Your task to perform on an android device: find snoozed emails in the gmail app Image 0: 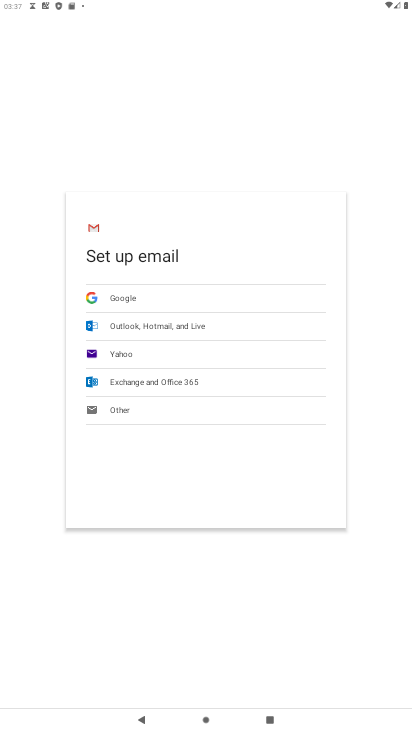
Step 0: press home button
Your task to perform on an android device: find snoozed emails in the gmail app Image 1: 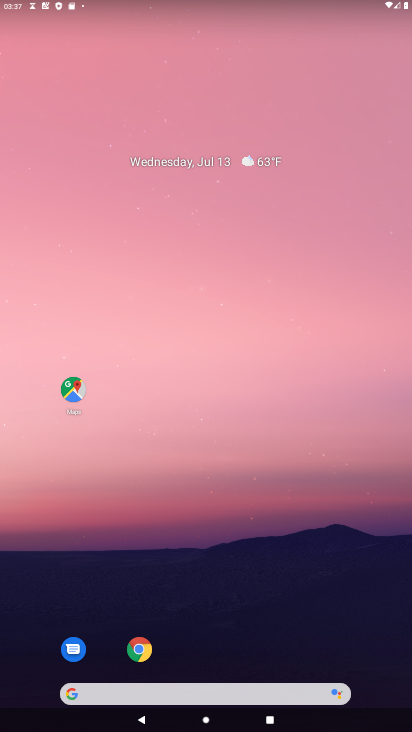
Step 1: drag from (225, 550) to (250, 7)
Your task to perform on an android device: find snoozed emails in the gmail app Image 2: 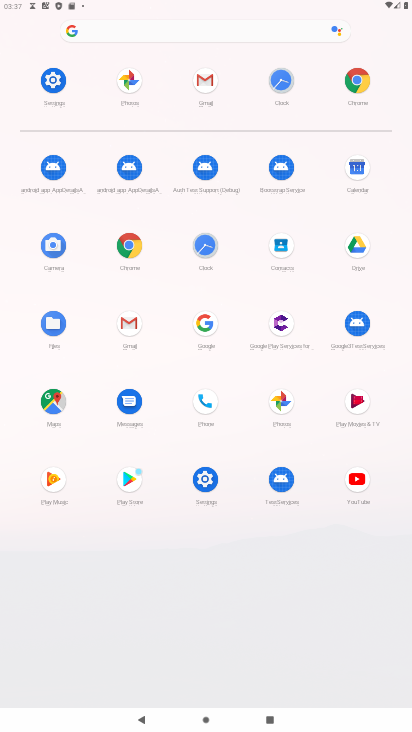
Step 2: click (205, 80)
Your task to perform on an android device: find snoozed emails in the gmail app Image 3: 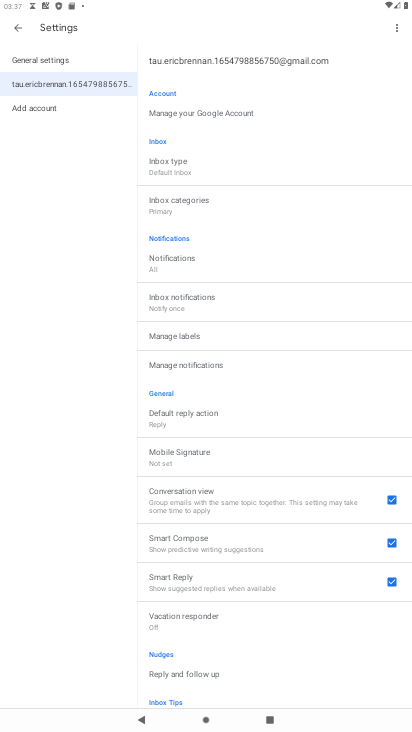
Step 3: click (18, 21)
Your task to perform on an android device: find snoozed emails in the gmail app Image 4: 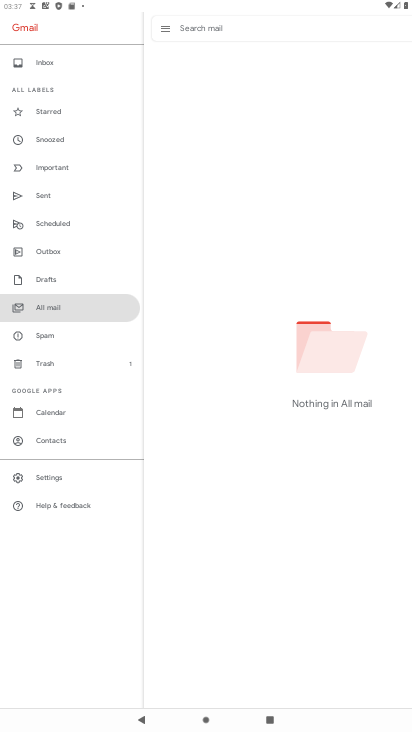
Step 4: click (30, 138)
Your task to perform on an android device: find snoozed emails in the gmail app Image 5: 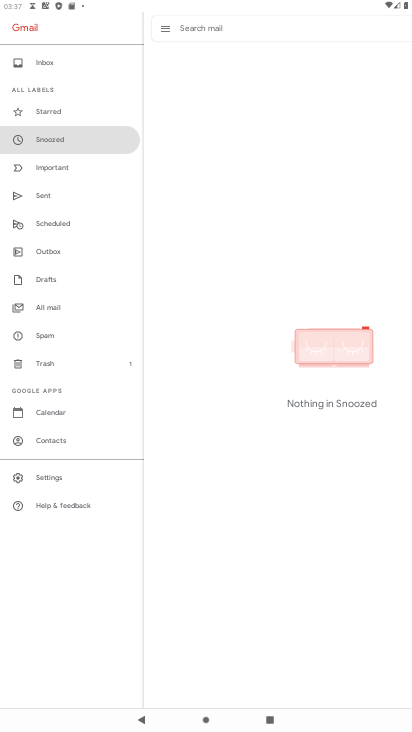
Step 5: task complete